Your task to perform on an android device: add a label to a message in the gmail app Image 0: 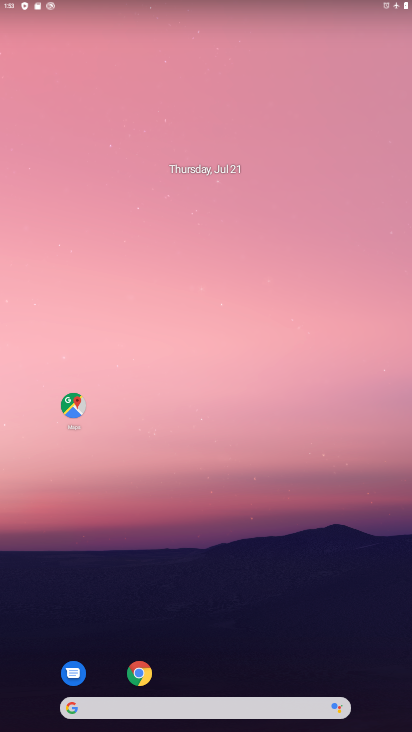
Step 0: drag from (181, 422) to (133, 0)
Your task to perform on an android device: add a label to a message in the gmail app Image 1: 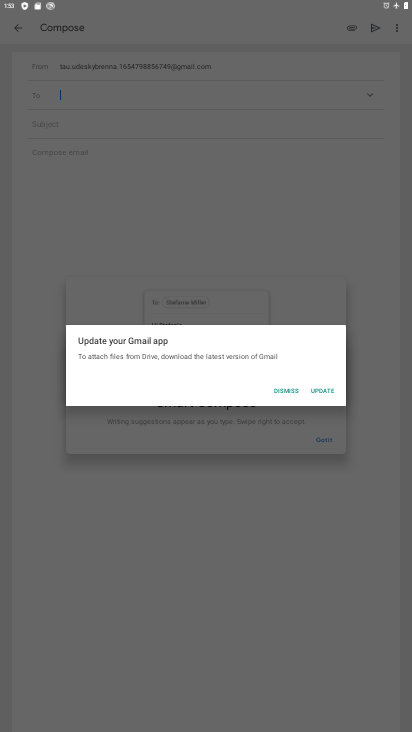
Step 1: press home button
Your task to perform on an android device: add a label to a message in the gmail app Image 2: 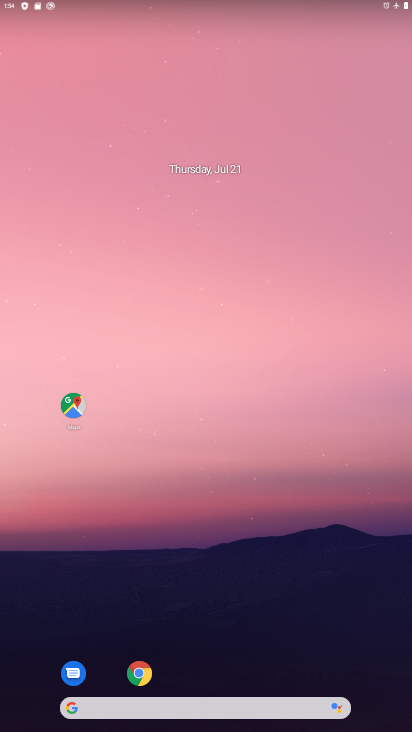
Step 2: drag from (220, 478) to (203, 182)
Your task to perform on an android device: add a label to a message in the gmail app Image 3: 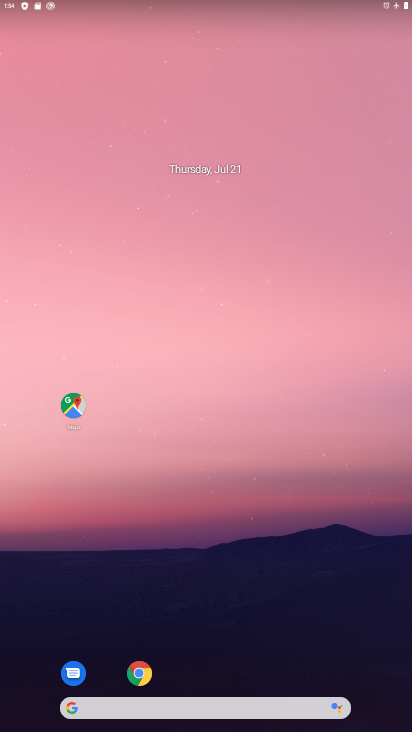
Step 3: drag from (214, 601) to (193, 214)
Your task to perform on an android device: add a label to a message in the gmail app Image 4: 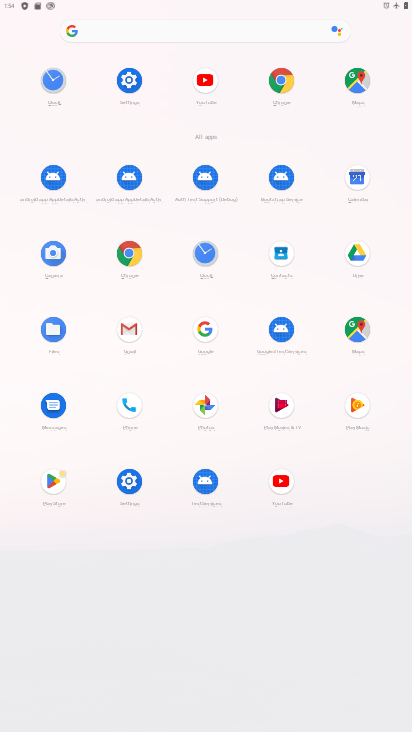
Step 4: click (132, 328)
Your task to perform on an android device: add a label to a message in the gmail app Image 5: 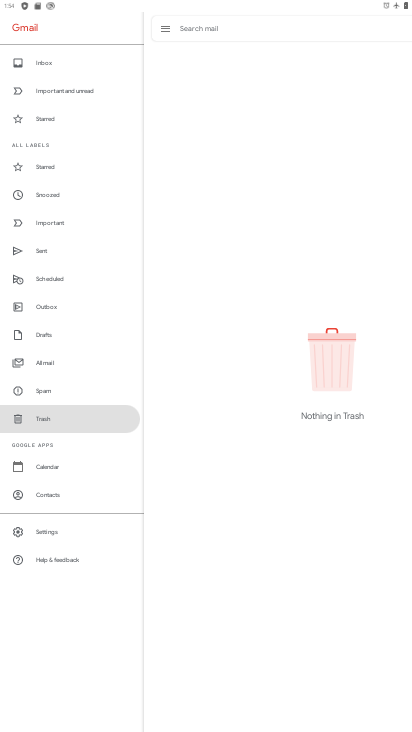
Step 5: task complete